Your task to perform on an android device: Open Google Image 0: 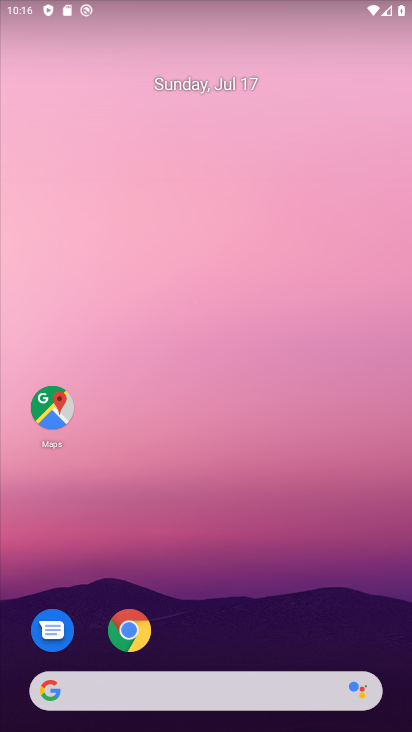
Step 0: drag from (390, 633) to (328, 148)
Your task to perform on an android device: Open Google Image 1: 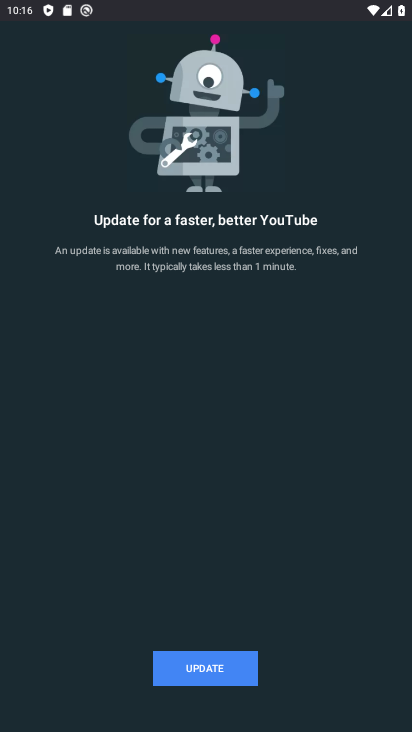
Step 1: press home button
Your task to perform on an android device: Open Google Image 2: 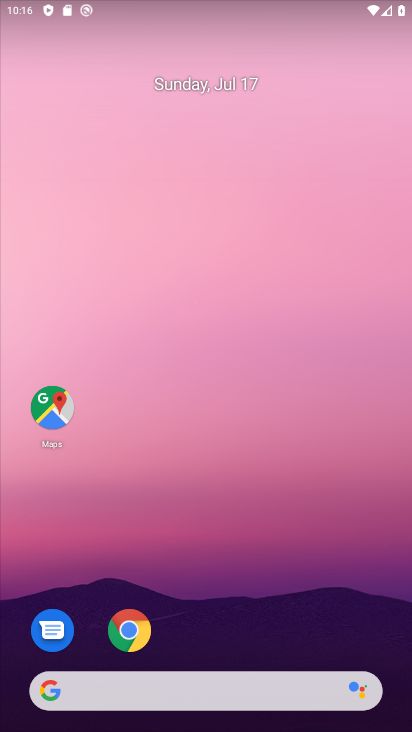
Step 2: click (128, 635)
Your task to perform on an android device: Open Google Image 3: 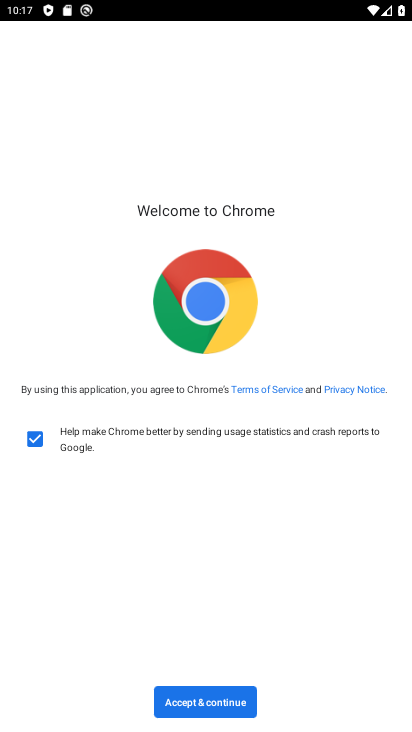
Step 3: click (208, 703)
Your task to perform on an android device: Open Google Image 4: 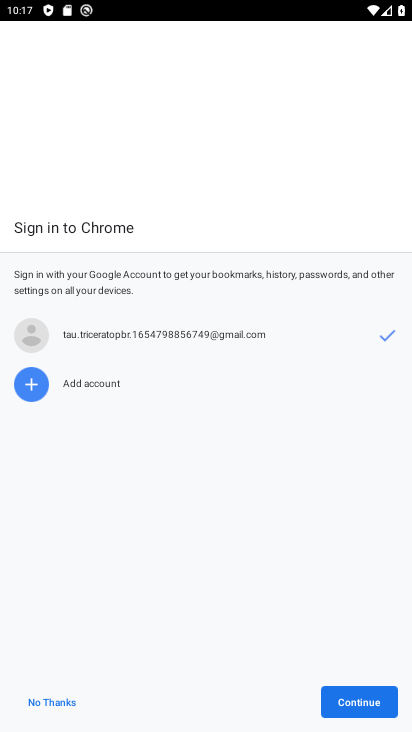
Step 4: click (355, 698)
Your task to perform on an android device: Open Google Image 5: 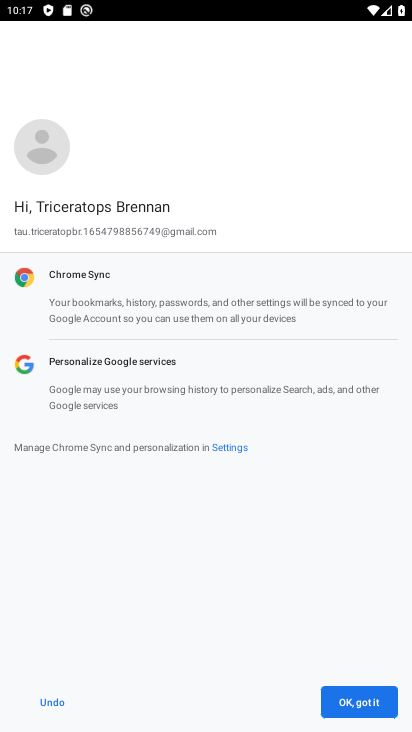
Step 5: click (355, 698)
Your task to perform on an android device: Open Google Image 6: 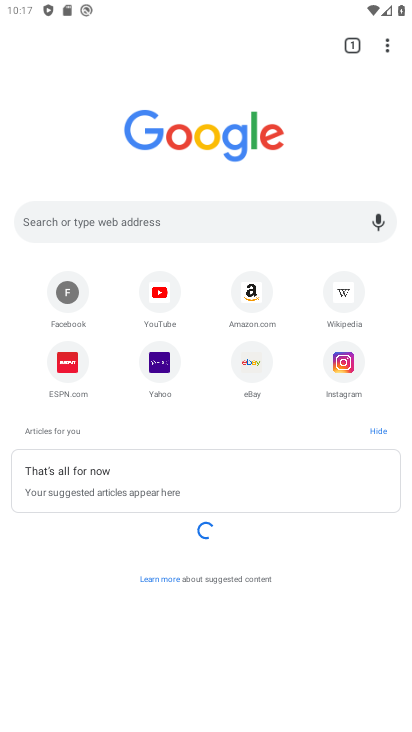
Step 6: task complete